Your task to perform on an android device: Open Google Chrome and open the bookmarks view Image 0: 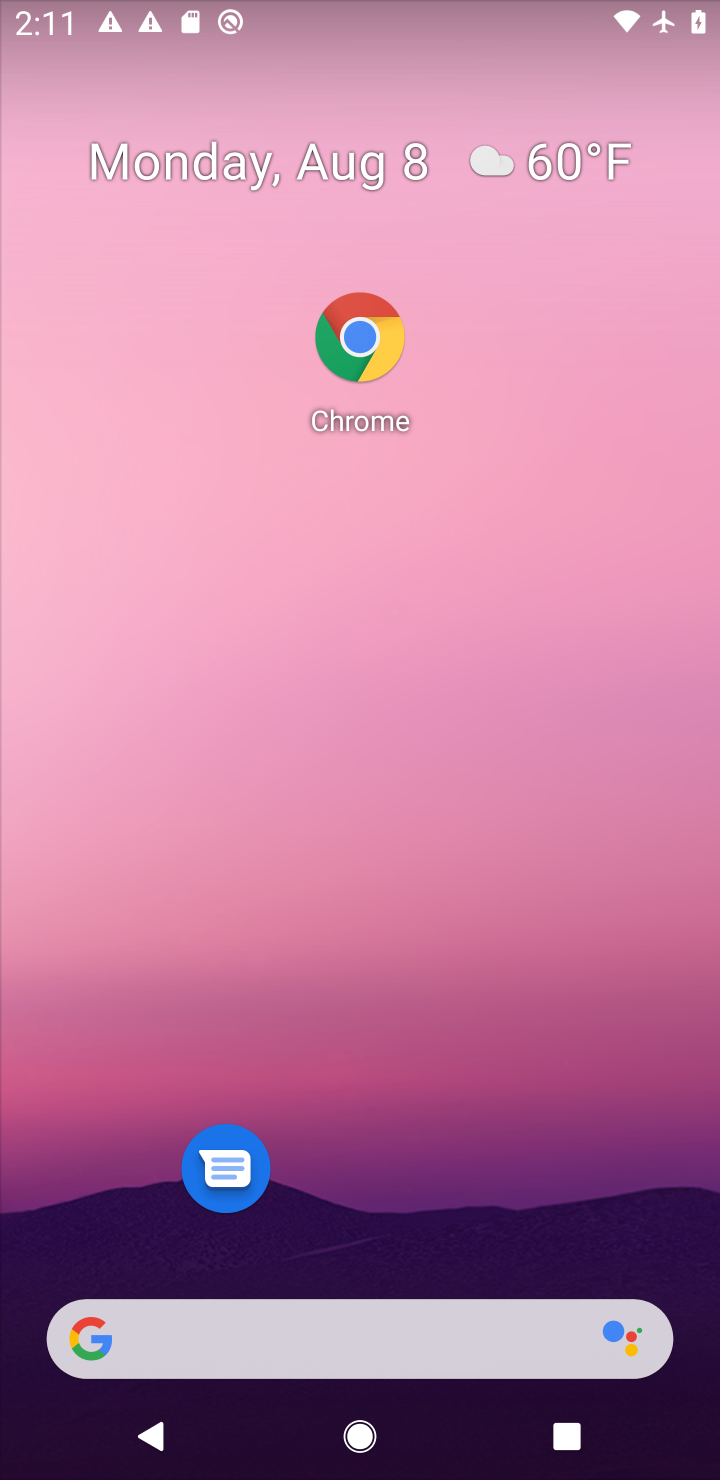
Step 0: click (364, 349)
Your task to perform on an android device: Open Google Chrome and open the bookmarks view Image 1: 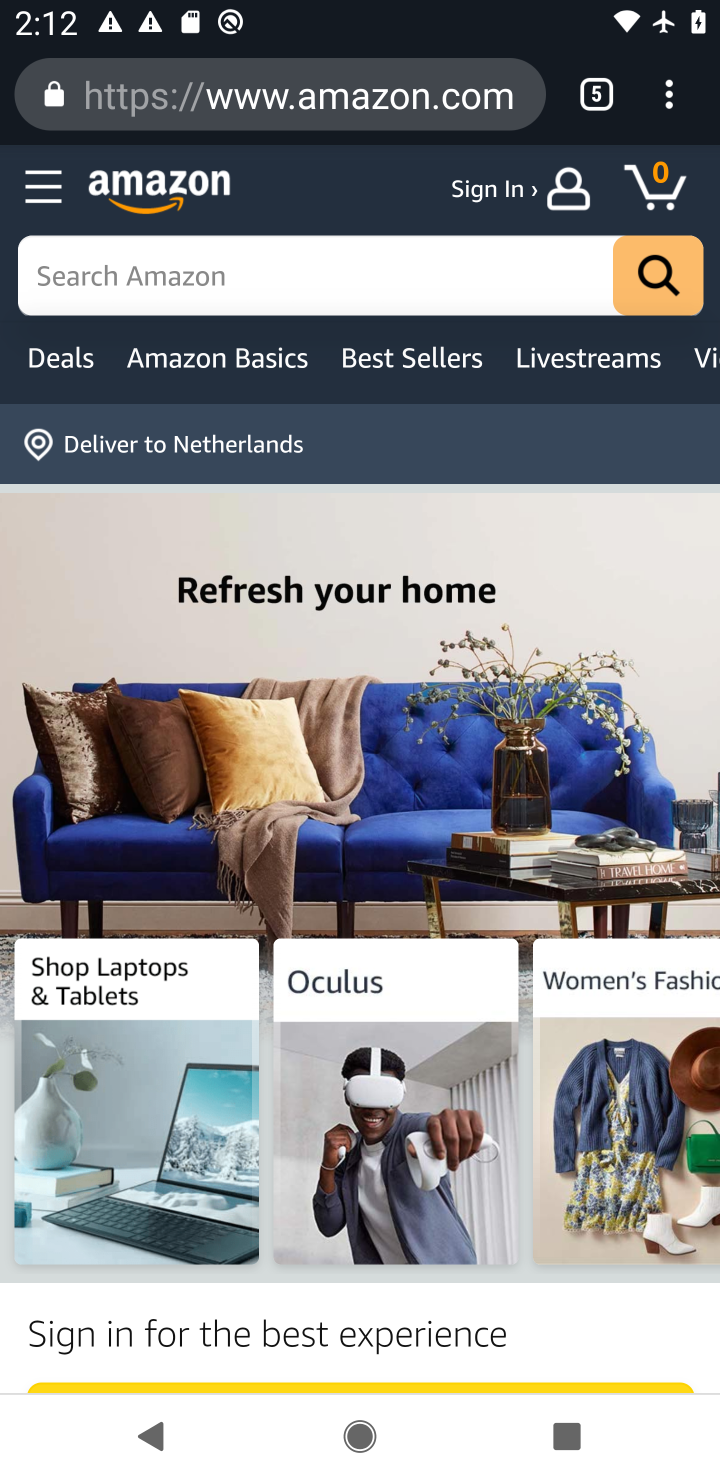
Step 1: click (676, 90)
Your task to perform on an android device: Open Google Chrome and open the bookmarks view Image 2: 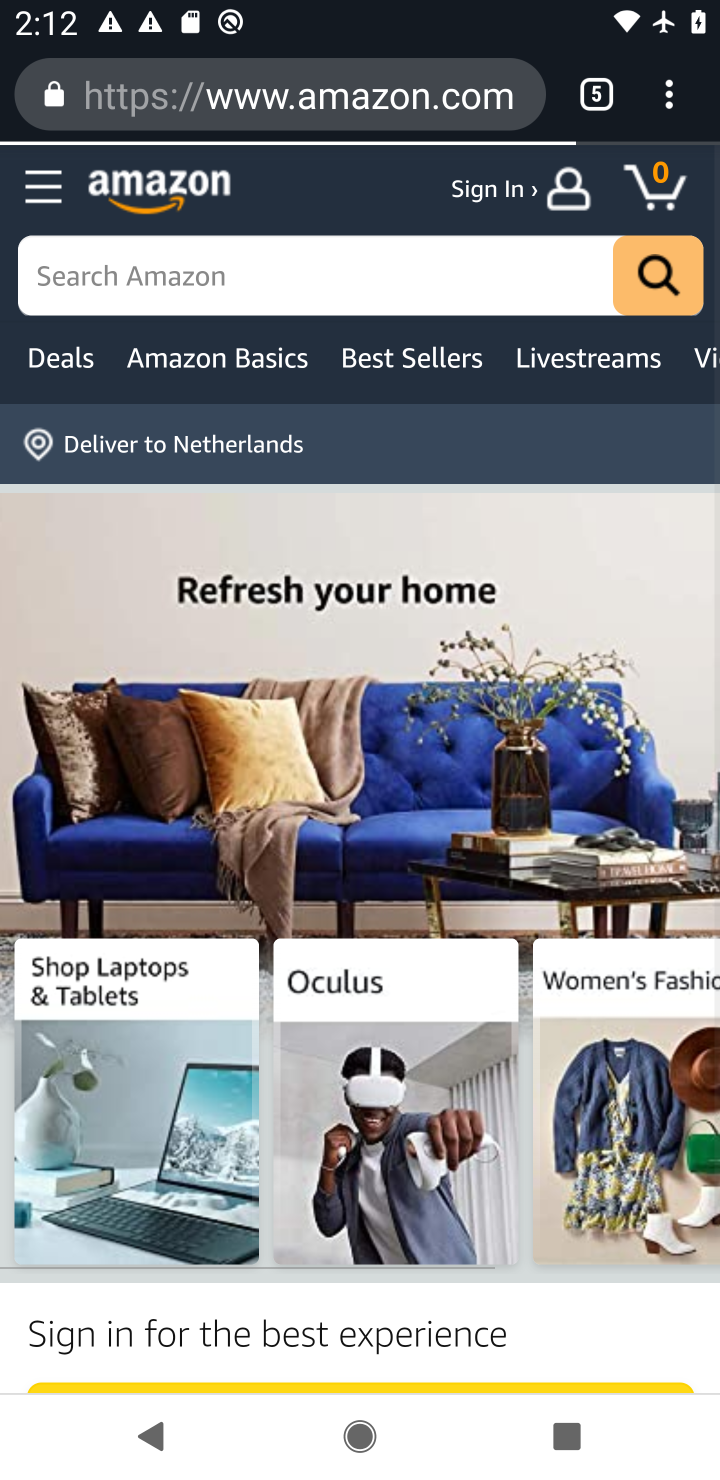
Step 2: click (672, 94)
Your task to perform on an android device: Open Google Chrome and open the bookmarks view Image 3: 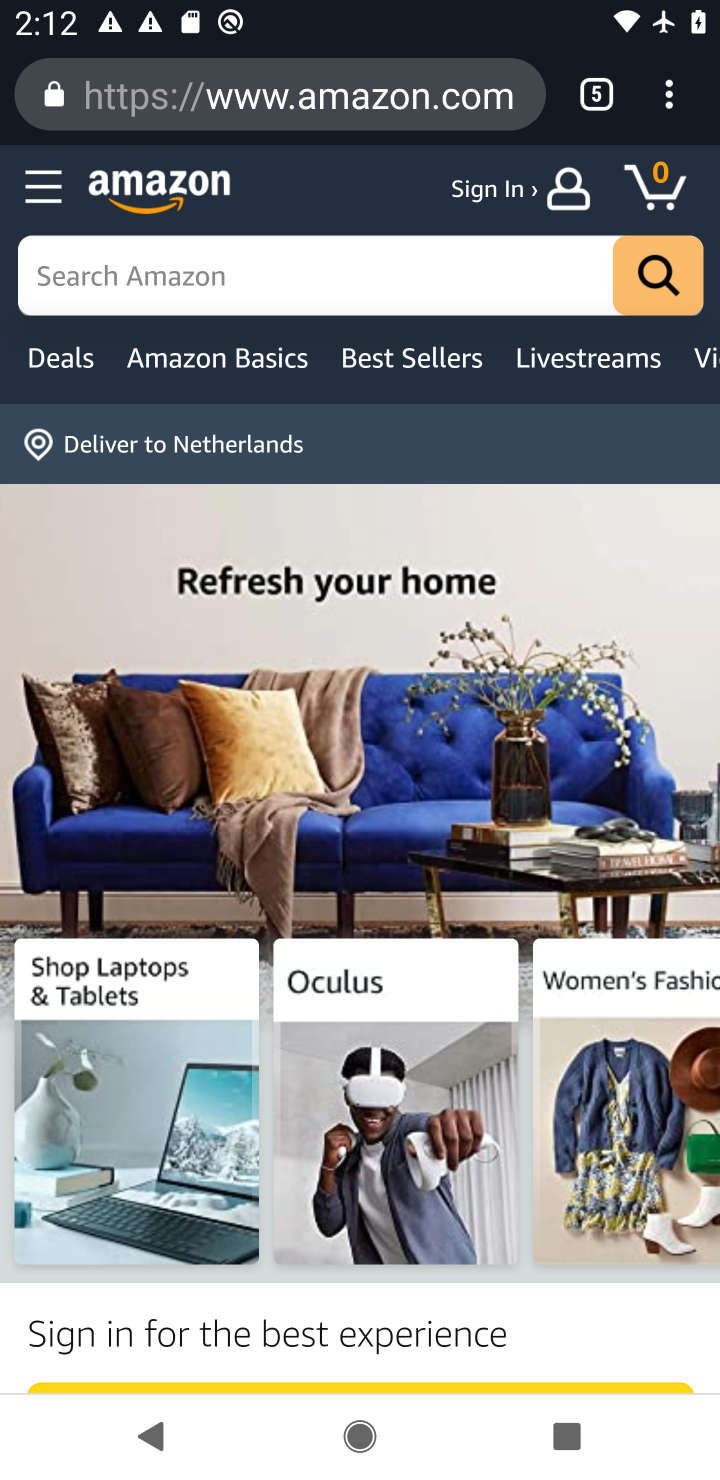
Step 3: task complete